Your task to perform on an android device: turn off data saver in the chrome app Image 0: 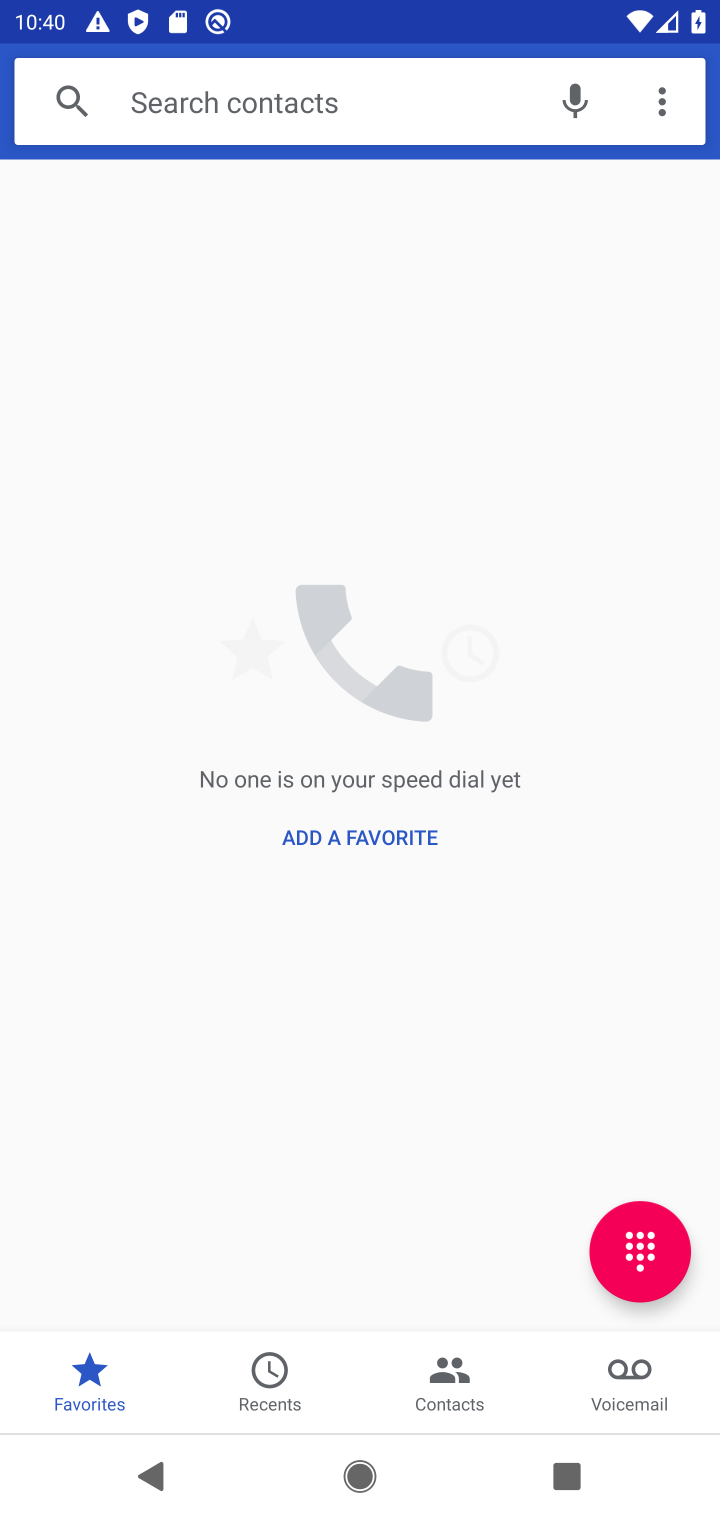
Step 0: press home button
Your task to perform on an android device: turn off data saver in the chrome app Image 1: 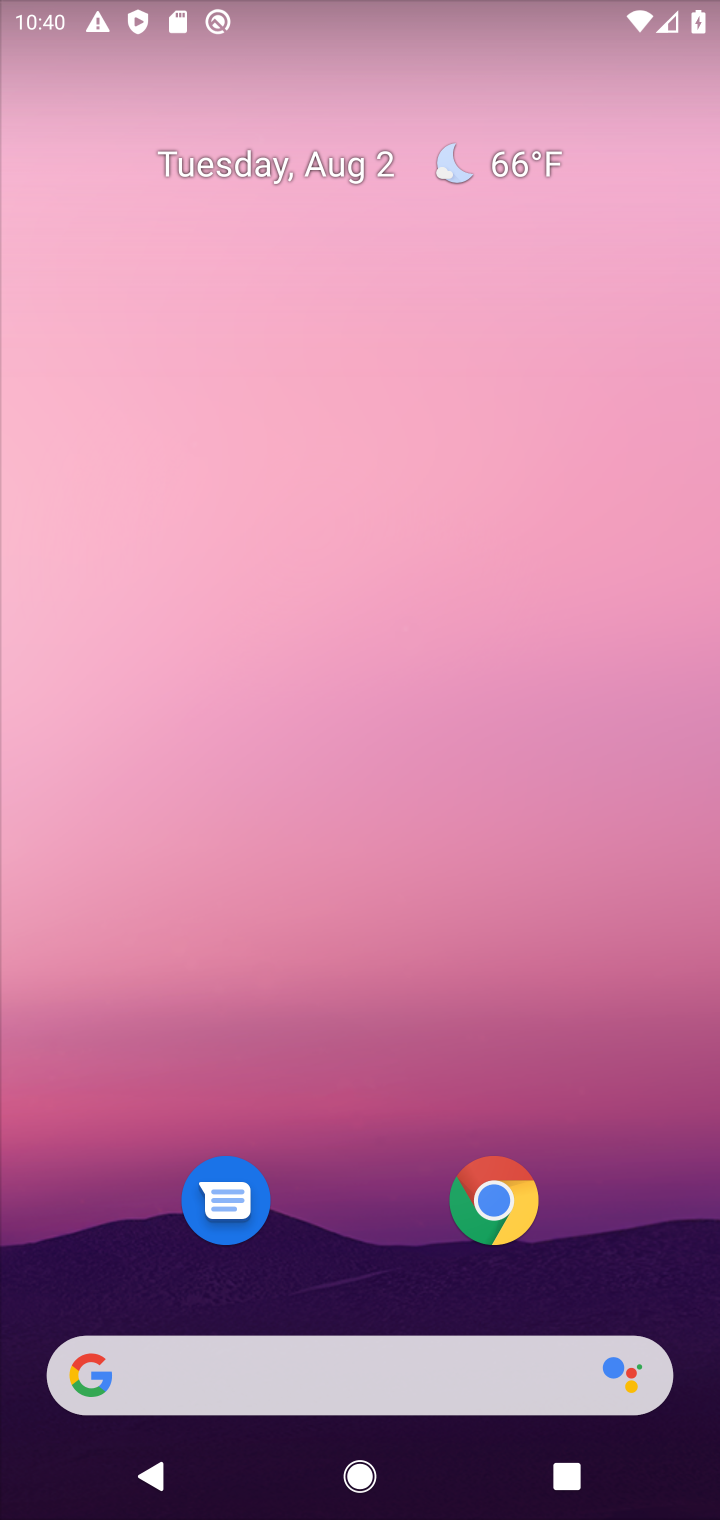
Step 1: click (495, 1210)
Your task to perform on an android device: turn off data saver in the chrome app Image 2: 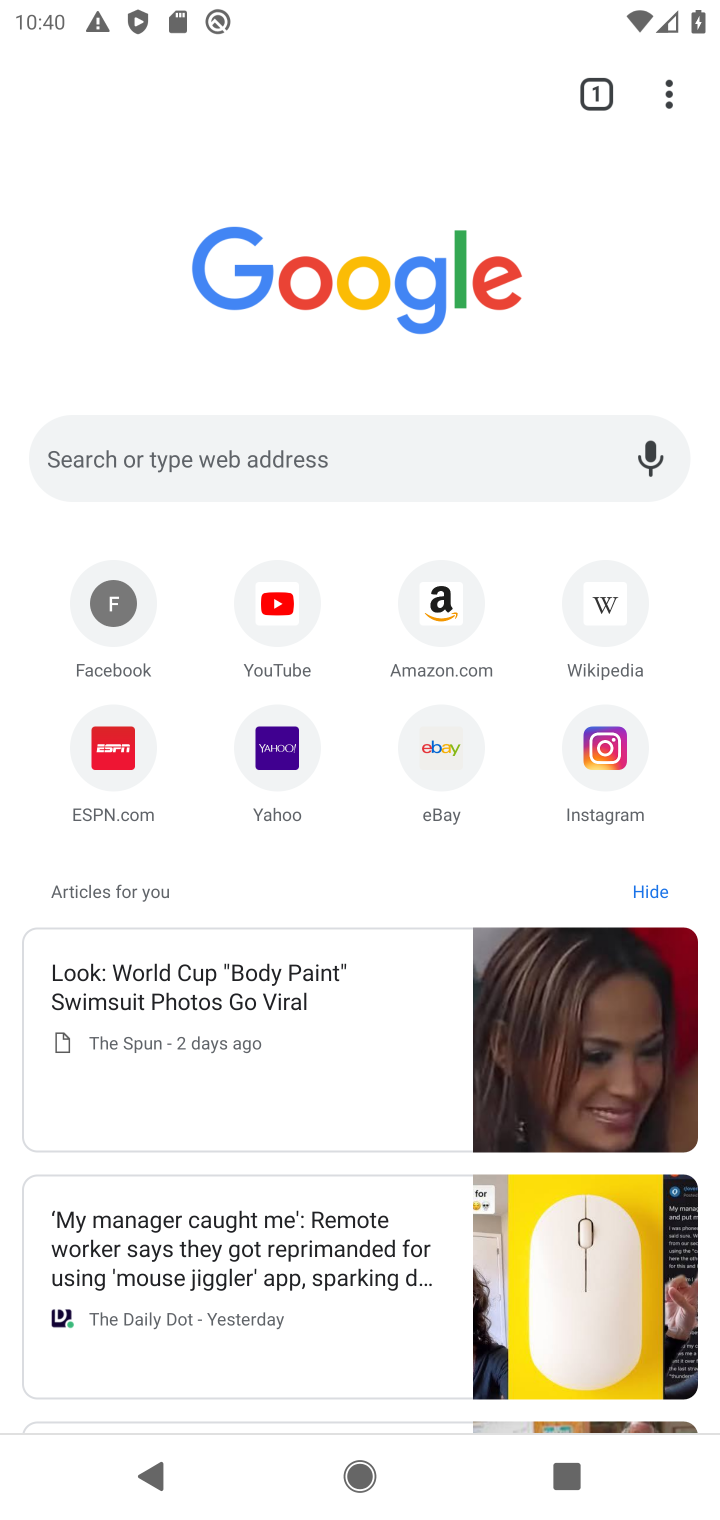
Step 2: click (668, 110)
Your task to perform on an android device: turn off data saver in the chrome app Image 3: 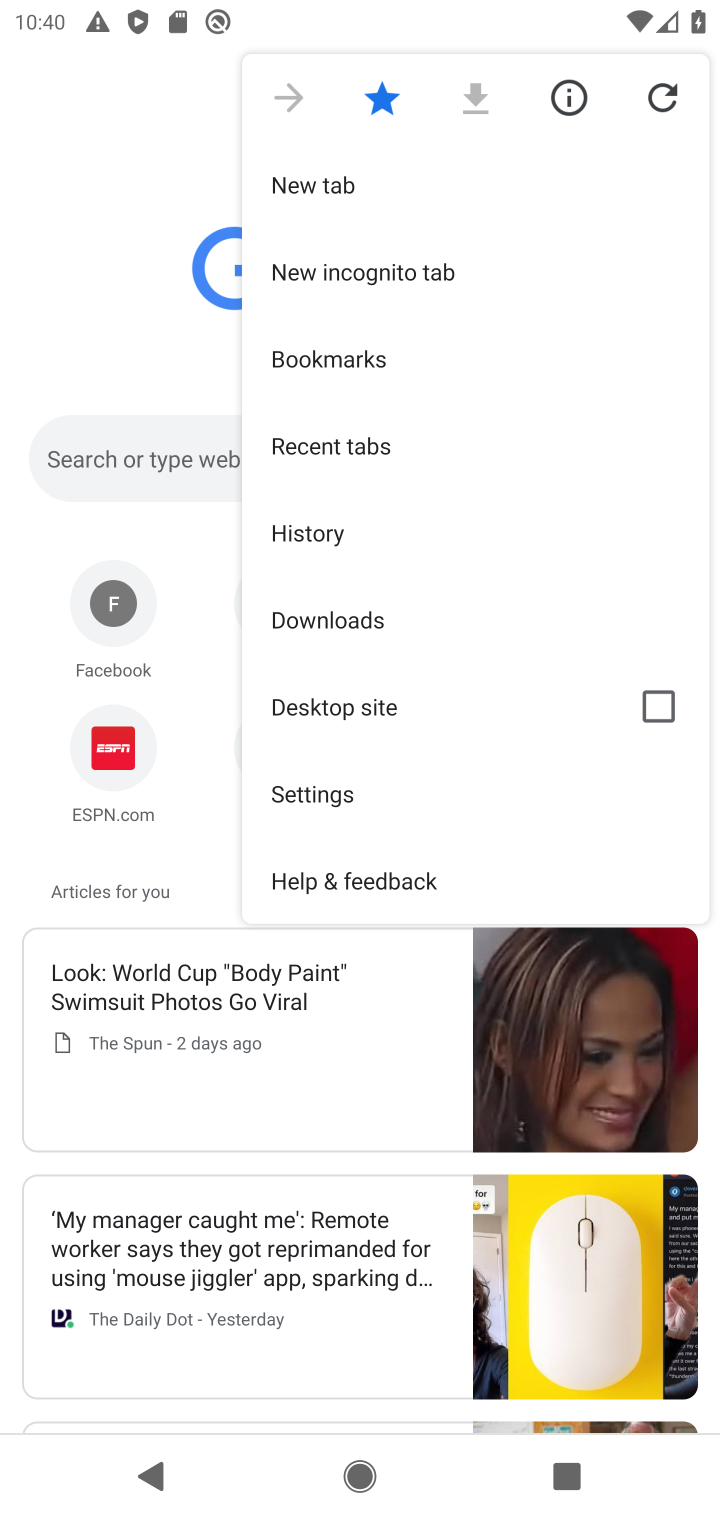
Step 3: click (302, 798)
Your task to perform on an android device: turn off data saver in the chrome app Image 4: 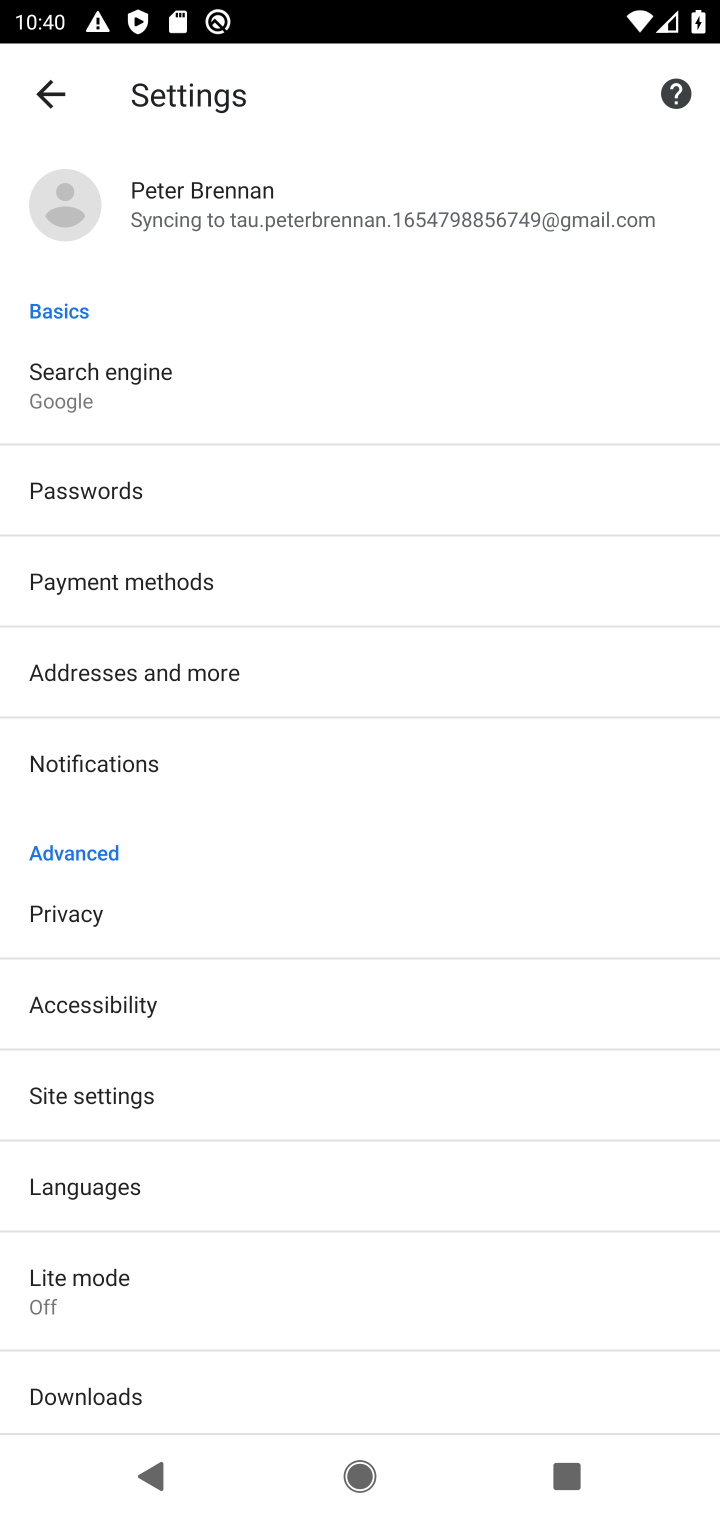
Step 4: click (57, 1287)
Your task to perform on an android device: turn off data saver in the chrome app Image 5: 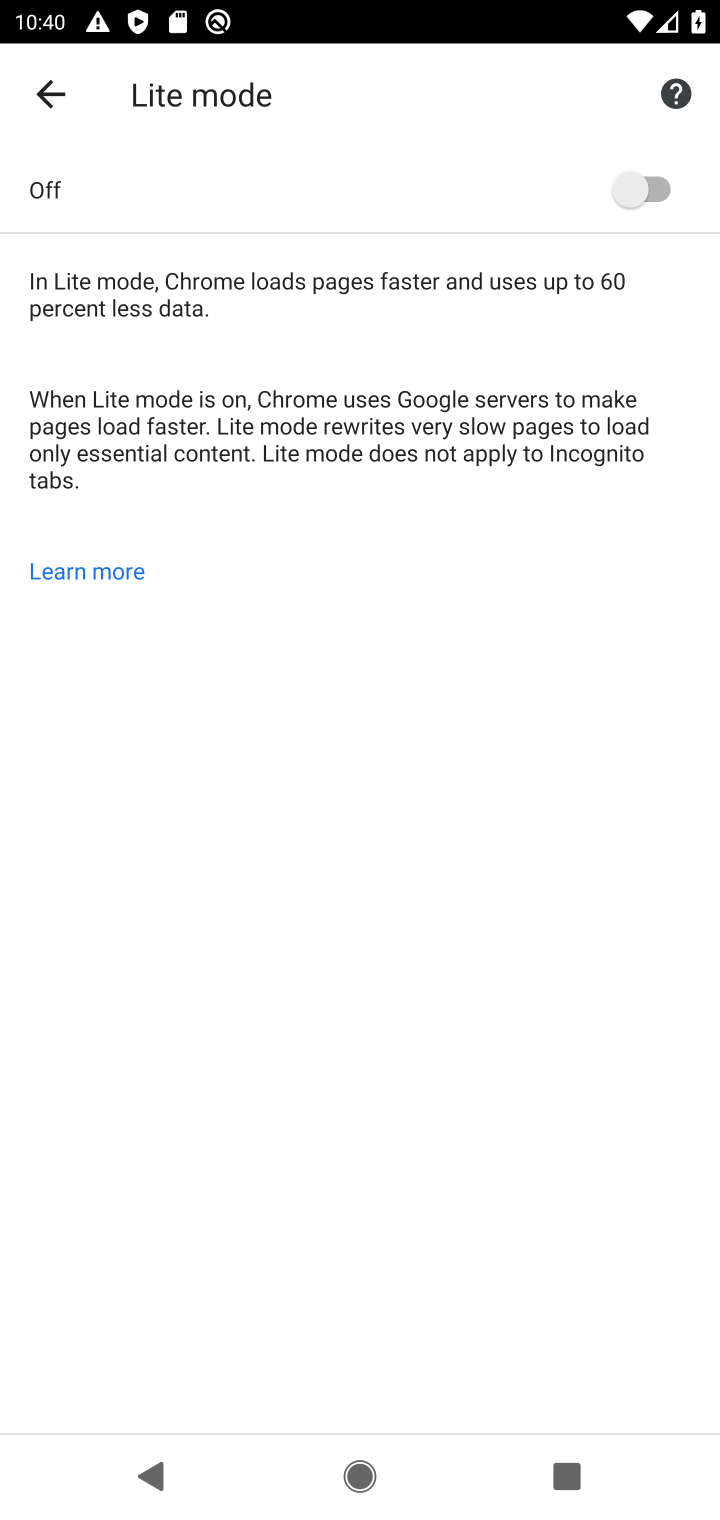
Step 5: task complete